Your task to perform on an android device: Open Google Chrome and click the shortcut for Amazon.com Image 0: 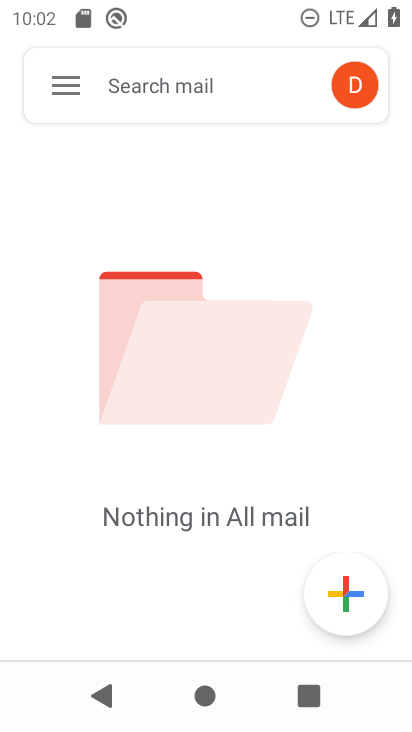
Step 0: press home button
Your task to perform on an android device: Open Google Chrome and click the shortcut for Amazon.com Image 1: 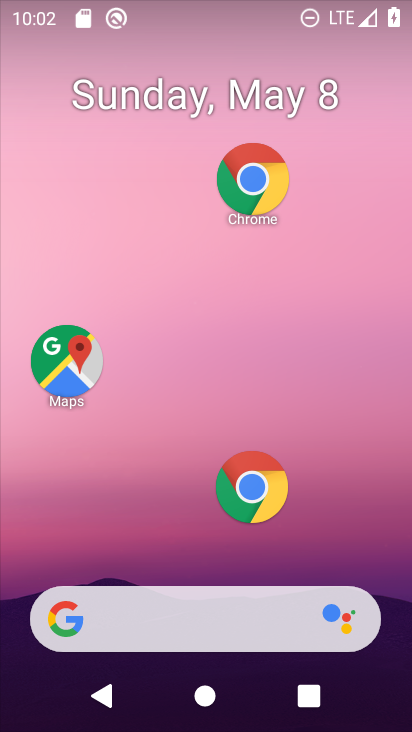
Step 1: drag from (187, 559) to (201, 62)
Your task to perform on an android device: Open Google Chrome and click the shortcut for Amazon.com Image 2: 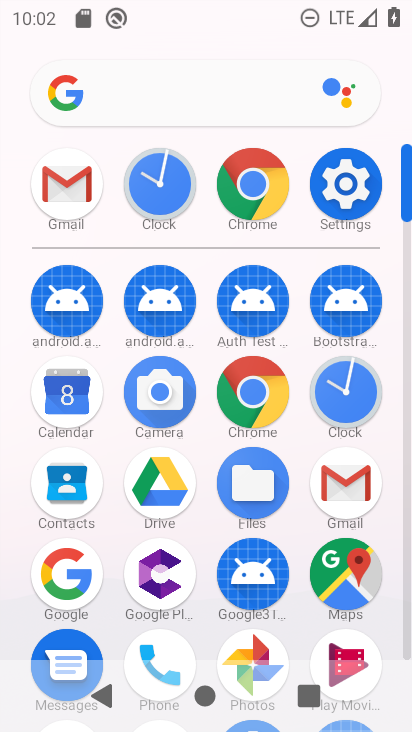
Step 2: click (253, 184)
Your task to perform on an android device: Open Google Chrome and click the shortcut for Amazon.com Image 3: 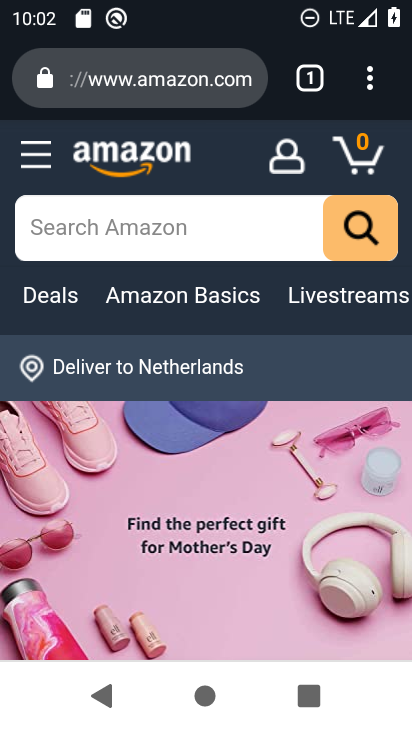
Step 3: task complete